Your task to perform on an android device: clear history in the chrome app Image 0: 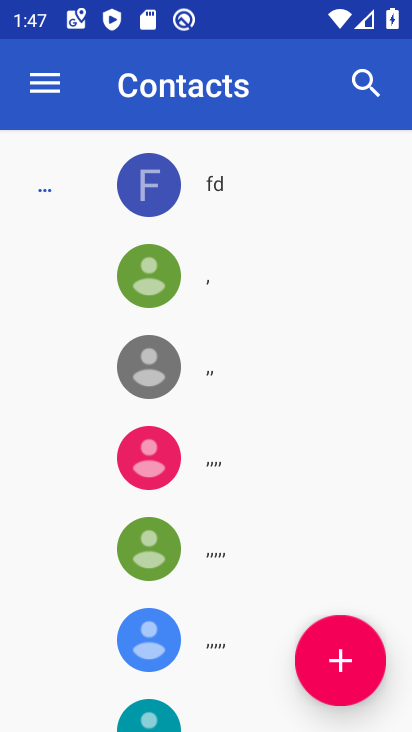
Step 0: press home button
Your task to perform on an android device: clear history in the chrome app Image 1: 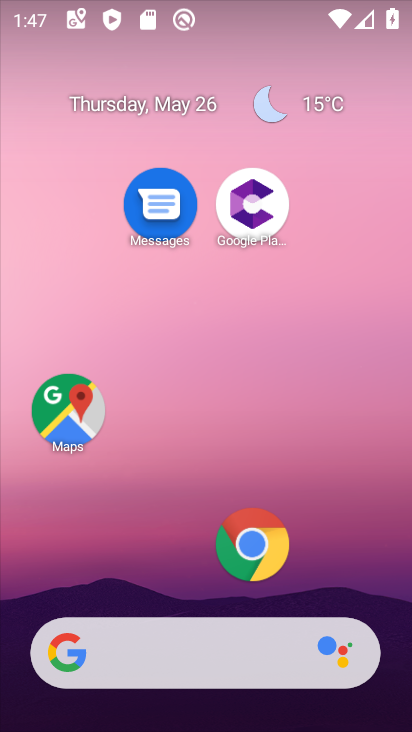
Step 1: click (251, 548)
Your task to perform on an android device: clear history in the chrome app Image 2: 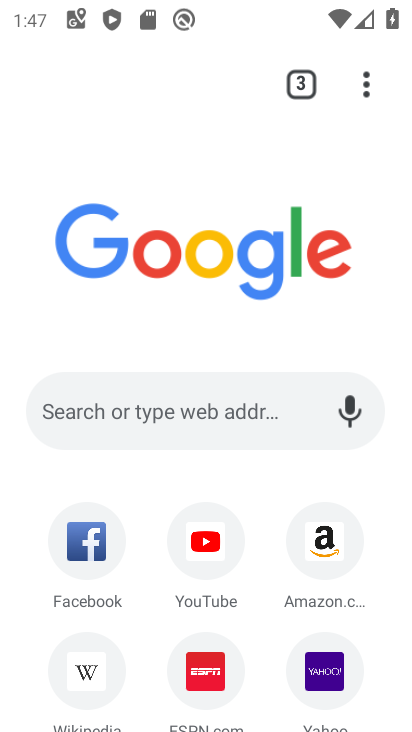
Step 2: click (355, 80)
Your task to perform on an android device: clear history in the chrome app Image 3: 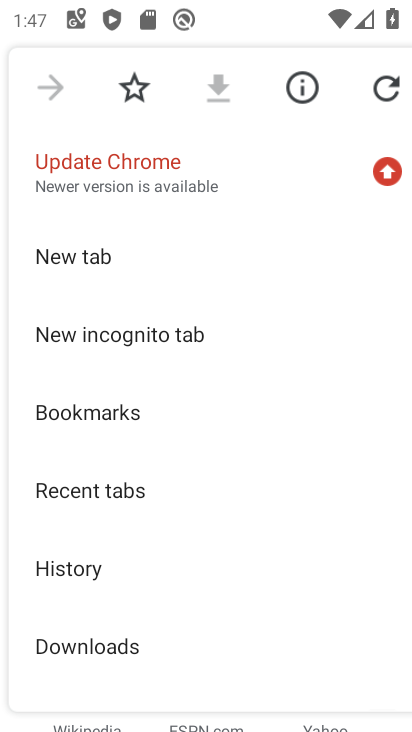
Step 3: click (86, 557)
Your task to perform on an android device: clear history in the chrome app Image 4: 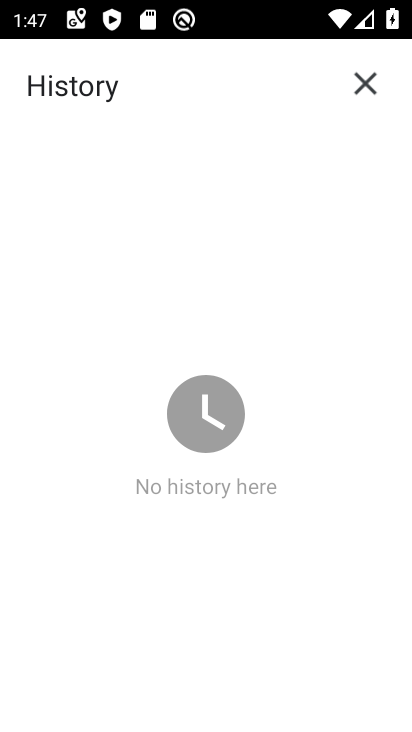
Step 4: task complete